Your task to perform on an android device: turn off smart reply in the gmail app Image 0: 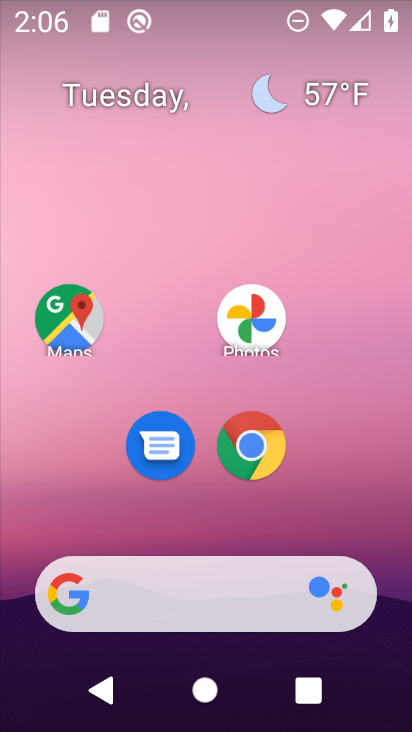
Step 0: drag from (378, 529) to (377, 218)
Your task to perform on an android device: turn off smart reply in the gmail app Image 1: 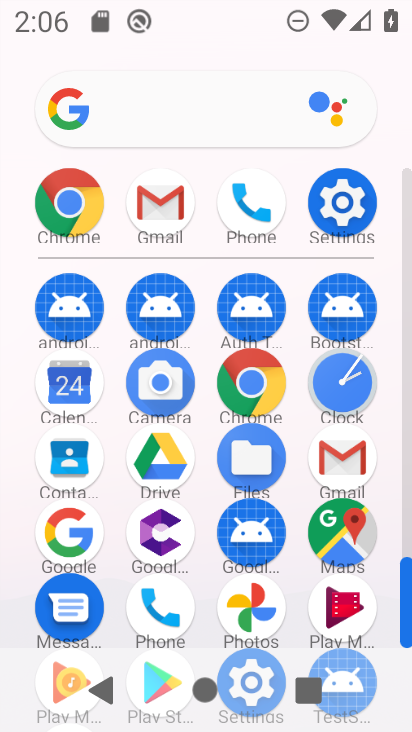
Step 1: click (345, 466)
Your task to perform on an android device: turn off smart reply in the gmail app Image 2: 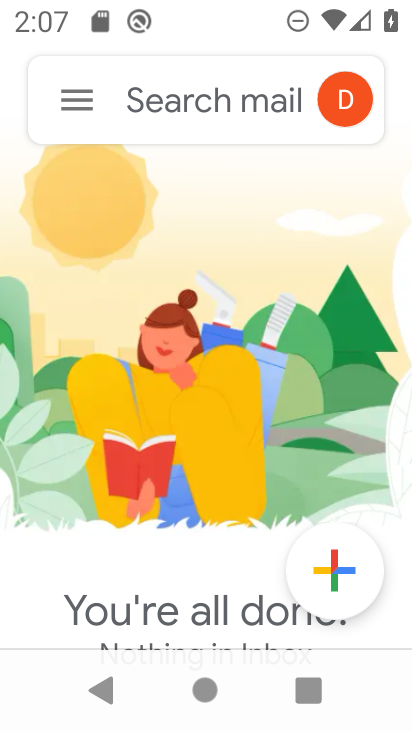
Step 2: click (89, 103)
Your task to perform on an android device: turn off smart reply in the gmail app Image 3: 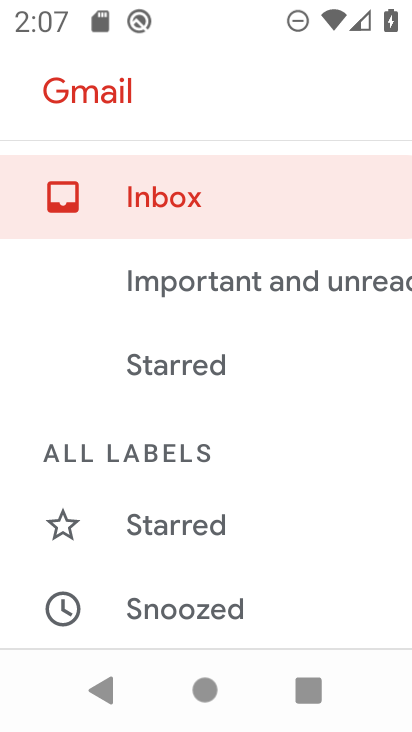
Step 3: drag from (301, 541) to (291, 414)
Your task to perform on an android device: turn off smart reply in the gmail app Image 4: 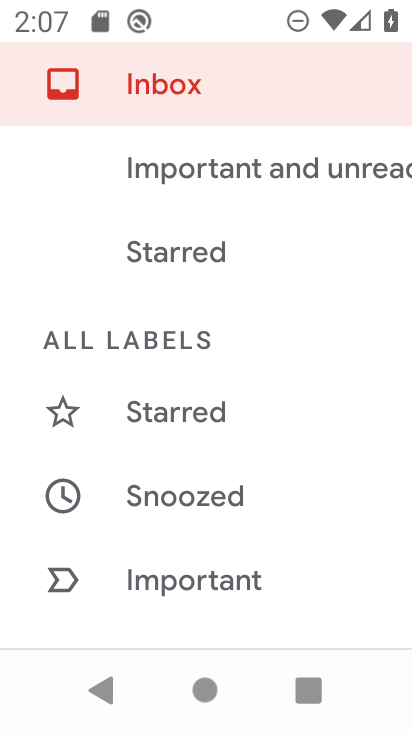
Step 4: drag from (327, 565) to (327, 412)
Your task to perform on an android device: turn off smart reply in the gmail app Image 5: 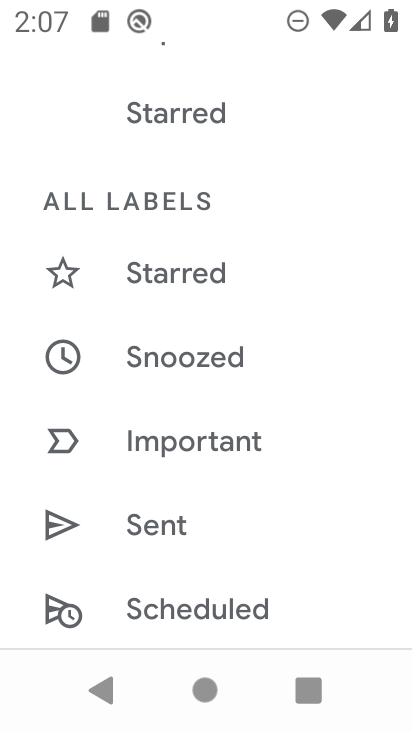
Step 5: drag from (325, 589) to (338, 442)
Your task to perform on an android device: turn off smart reply in the gmail app Image 6: 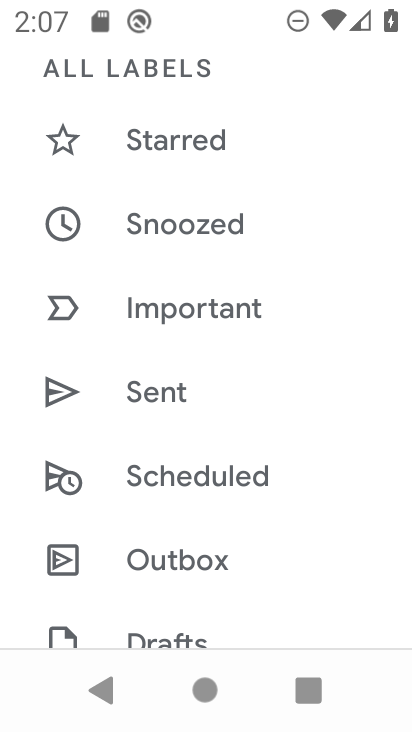
Step 6: drag from (347, 560) to (344, 370)
Your task to perform on an android device: turn off smart reply in the gmail app Image 7: 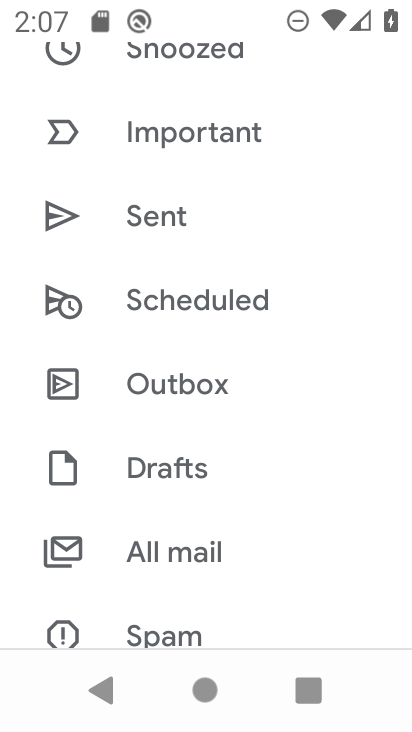
Step 7: drag from (322, 582) to (339, 408)
Your task to perform on an android device: turn off smart reply in the gmail app Image 8: 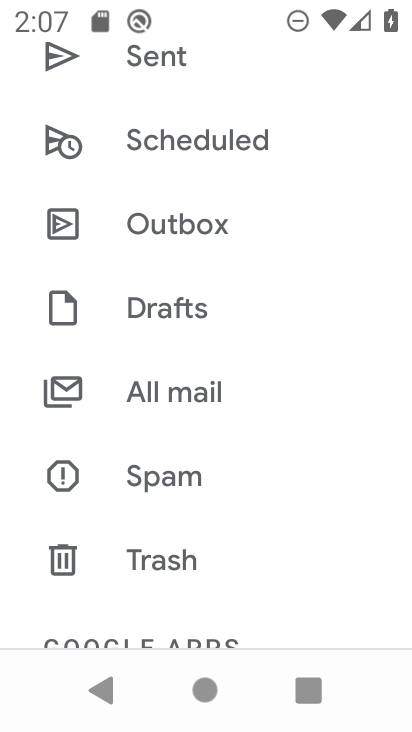
Step 8: drag from (341, 557) to (346, 410)
Your task to perform on an android device: turn off smart reply in the gmail app Image 9: 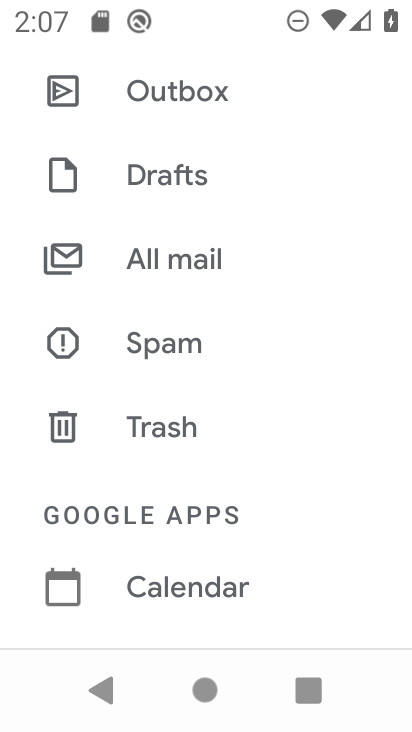
Step 9: drag from (342, 507) to (329, 425)
Your task to perform on an android device: turn off smart reply in the gmail app Image 10: 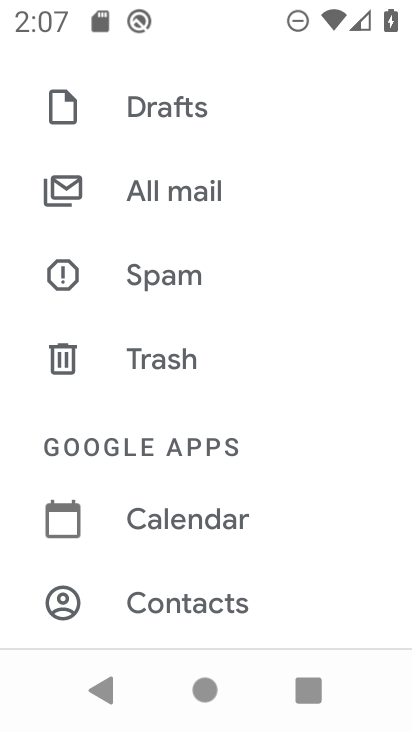
Step 10: drag from (325, 568) to (315, 405)
Your task to perform on an android device: turn off smart reply in the gmail app Image 11: 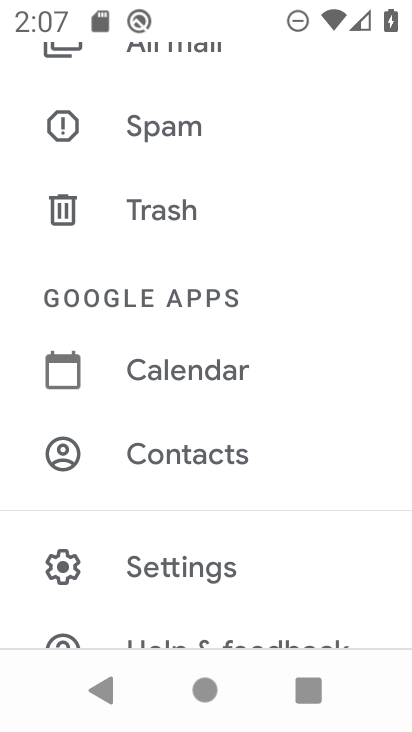
Step 11: click (217, 581)
Your task to perform on an android device: turn off smart reply in the gmail app Image 12: 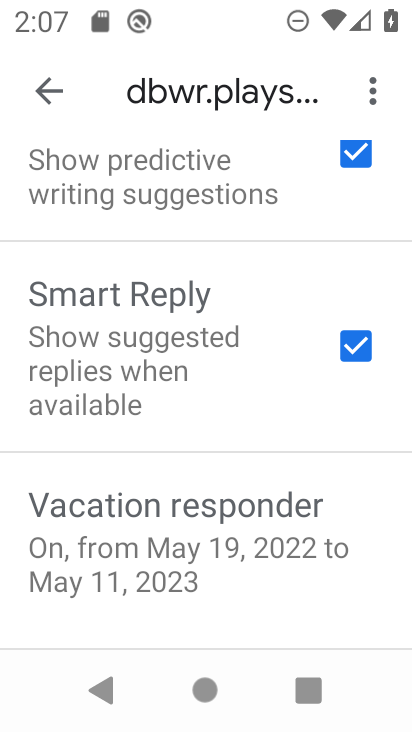
Step 12: drag from (263, 294) to (245, 408)
Your task to perform on an android device: turn off smart reply in the gmail app Image 13: 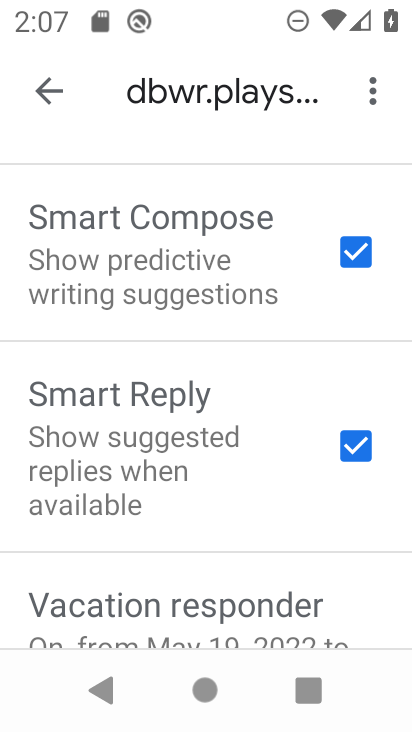
Step 13: click (346, 451)
Your task to perform on an android device: turn off smart reply in the gmail app Image 14: 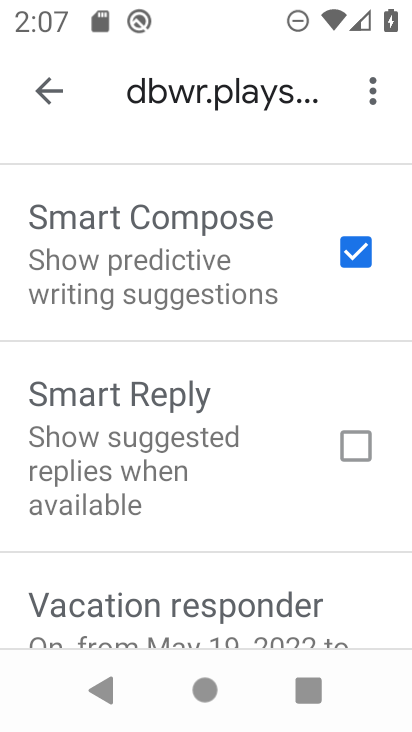
Step 14: task complete